Your task to perform on an android device: Open the Play Movies app and select the watchlist tab. Image 0: 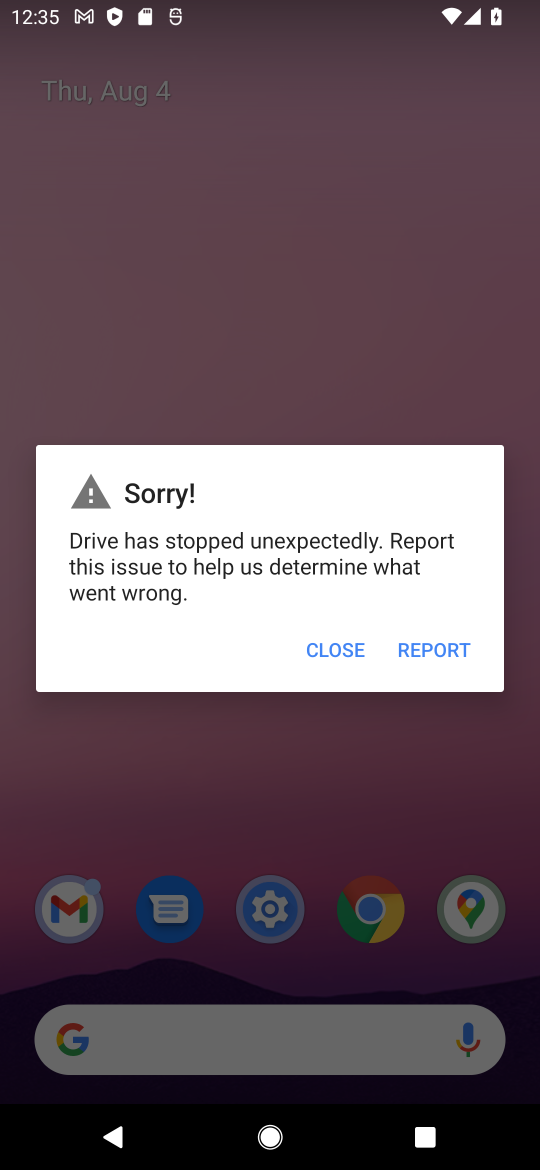
Step 0: press home button
Your task to perform on an android device: Open the Play Movies app and select the watchlist tab. Image 1: 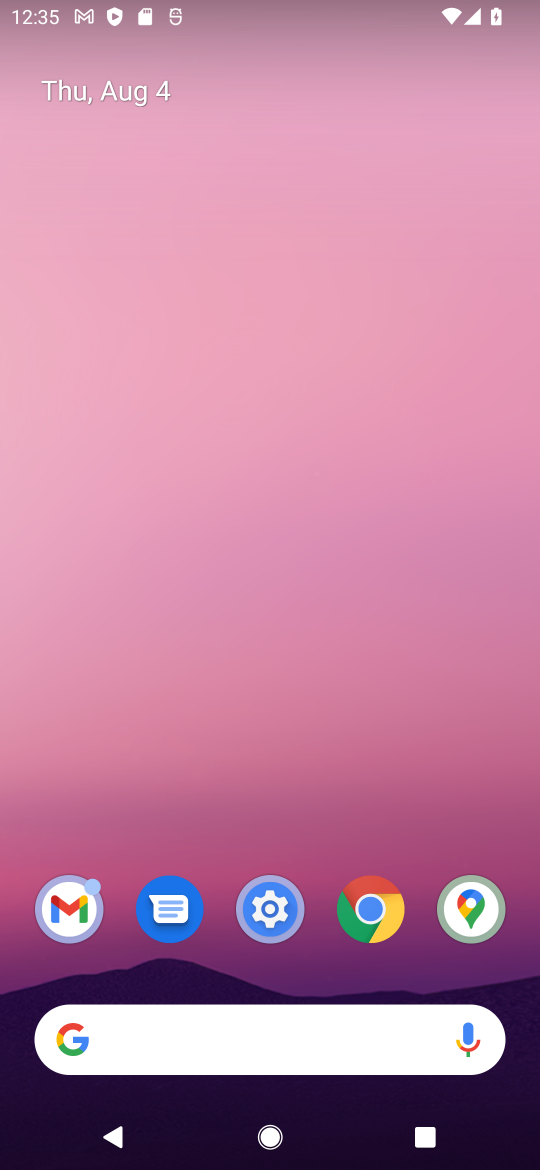
Step 1: task complete